Your task to perform on an android device: Check the news Image 0: 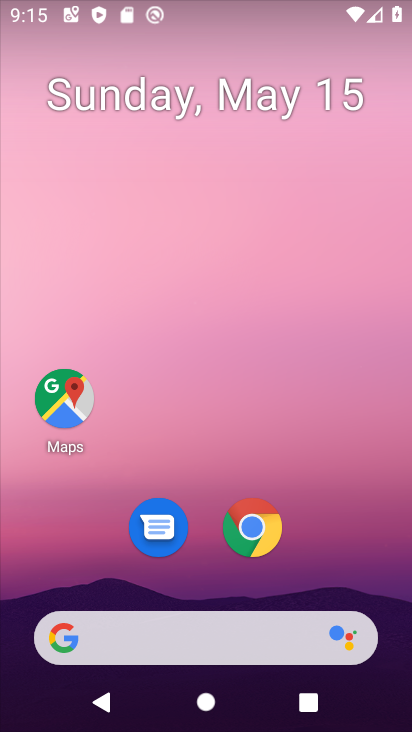
Step 0: drag from (324, 561) to (257, 220)
Your task to perform on an android device: Check the news Image 1: 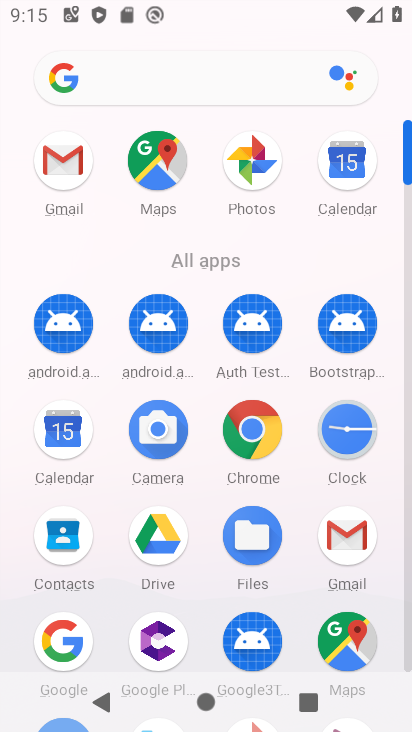
Step 1: click (250, 451)
Your task to perform on an android device: Check the news Image 2: 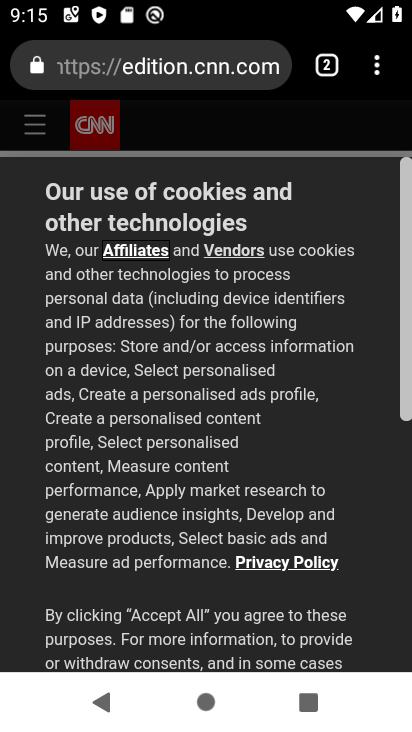
Step 2: click (238, 77)
Your task to perform on an android device: Check the news Image 3: 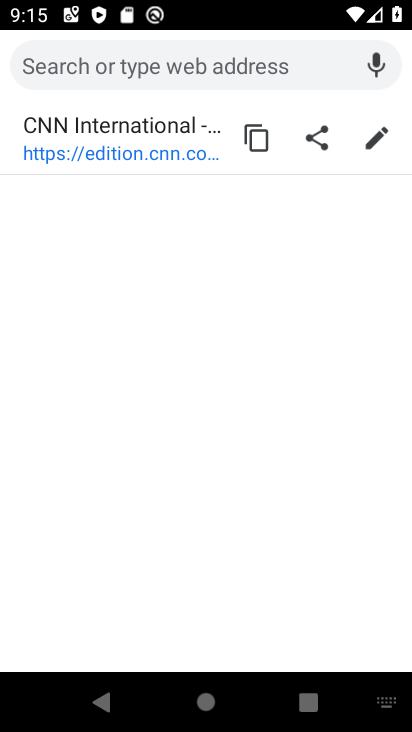
Step 3: type "news"
Your task to perform on an android device: Check the news Image 4: 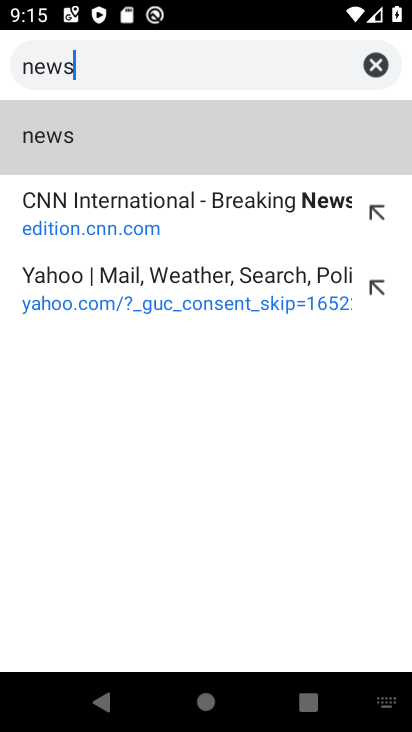
Step 4: click (66, 155)
Your task to perform on an android device: Check the news Image 5: 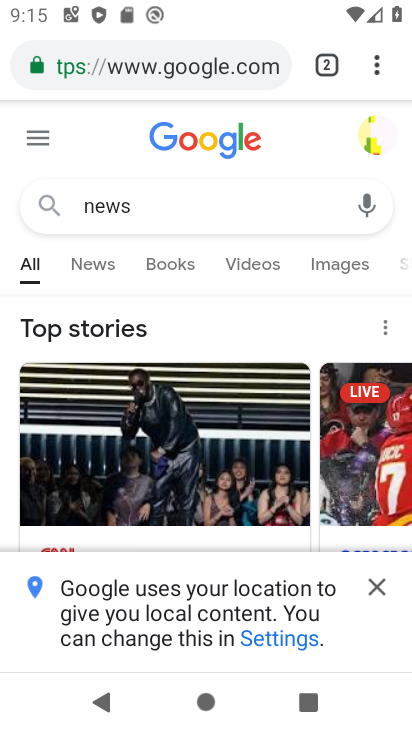
Step 5: click (379, 585)
Your task to perform on an android device: Check the news Image 6: 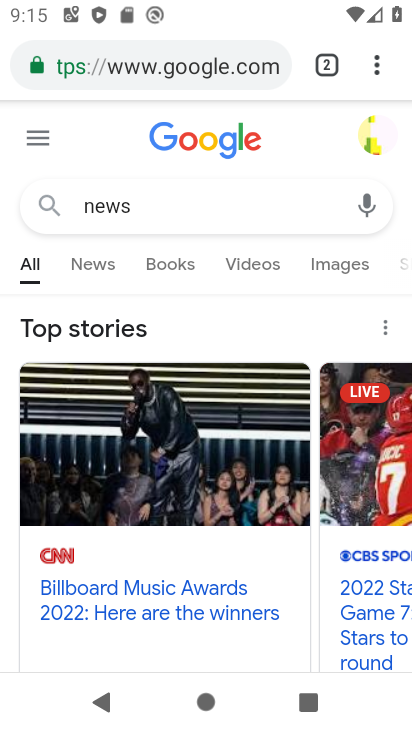
Step 6: drag from (313, 613) to (319, 294)
Your task to perform on an android device: Check the news Image 7: 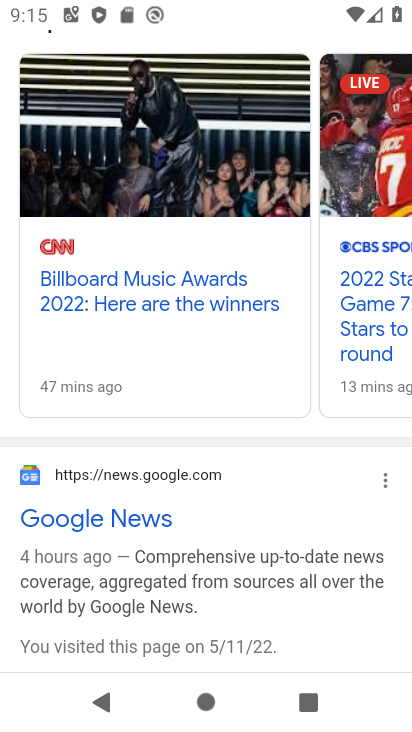
Step 7: click (162, 512)
Your task to perform on an android device: Check the news Image 8: 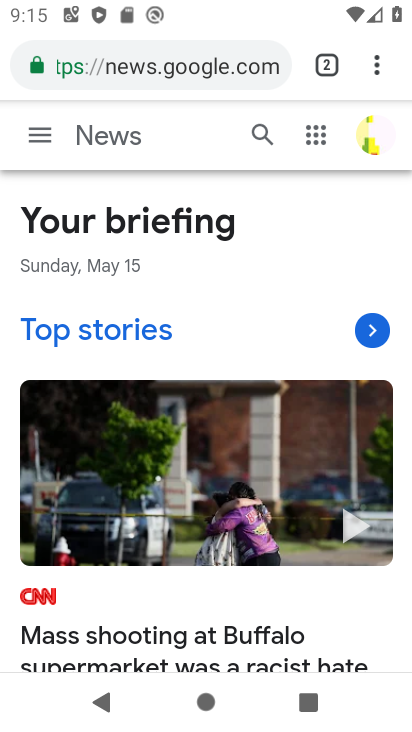
Step 8: task complete